Your task to perform on an android device: Open Google Maps Image 0: 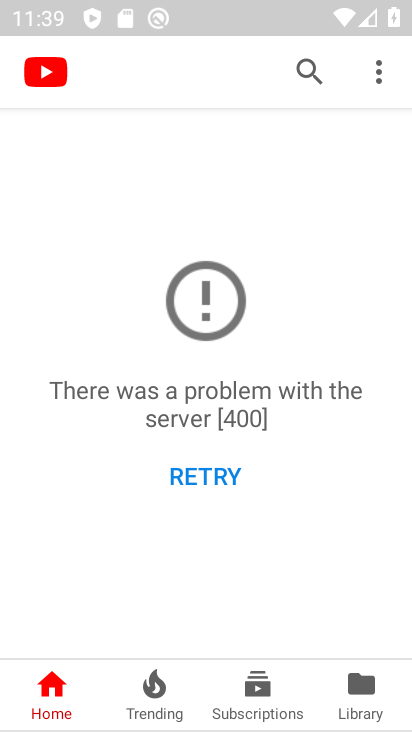
Step 0: press home button
Your task to perform on an android device: Open Google Maps Image 1: 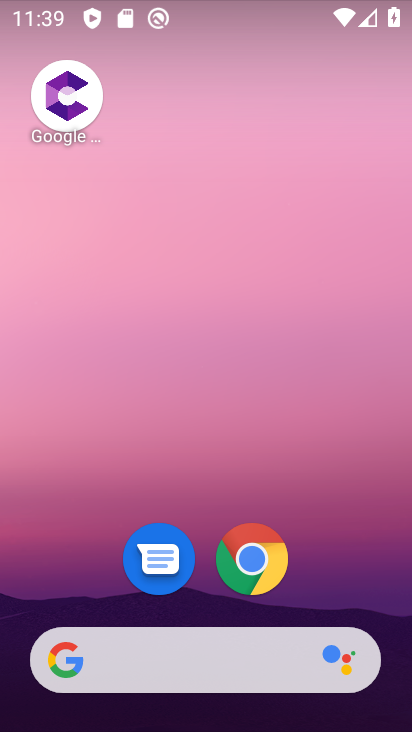
Step 1: drag from (235, 611) to (234, 161)
Your task to perform on an android device: Open Google Maps Image 2: 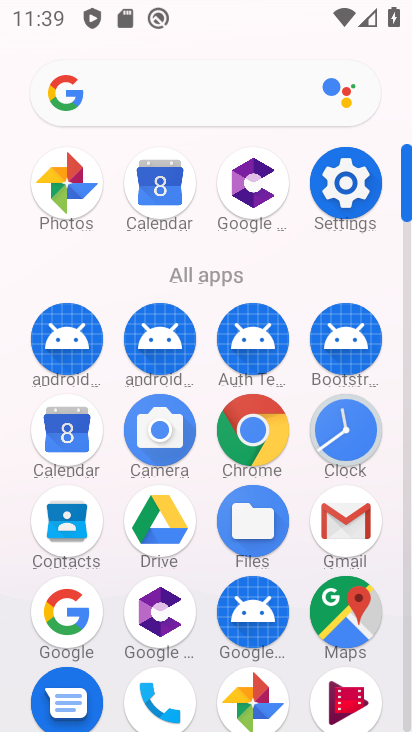
Step 2: drag from (268, 630) to (302, 397)
Your task to perform on an android device: Open Google Maps Image 3: 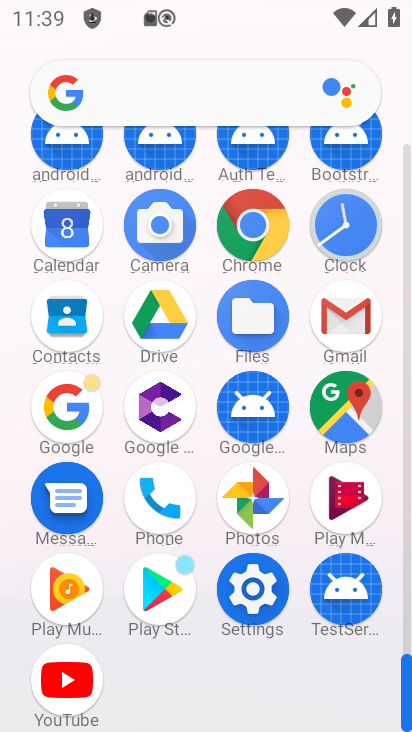
Step 3: click (352, 391)
Your task to perform on an android device: Open Google Maps Image 4: 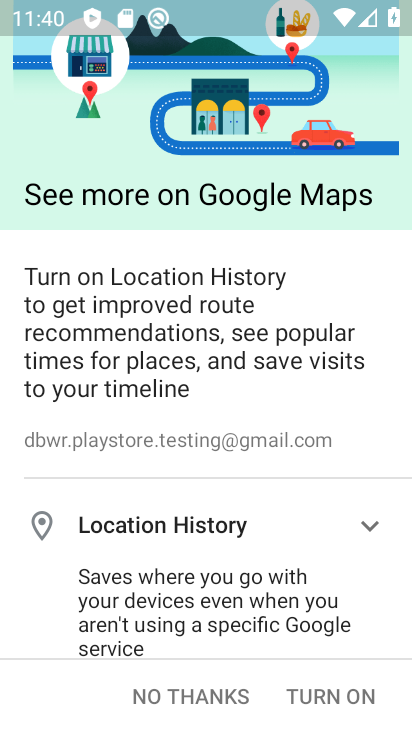
Step 4: click (234, 687)
Your task to perform on an android device: Open Google Maps Image 5: 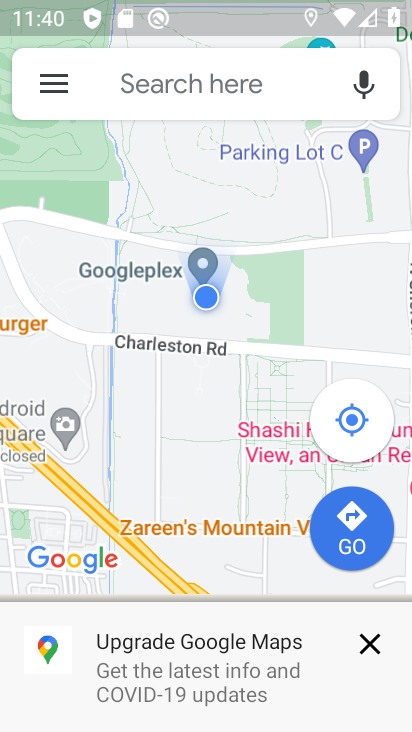
Step 5: task complete